Your task to perform on an android device: add a contact in the contacts app Image 0: 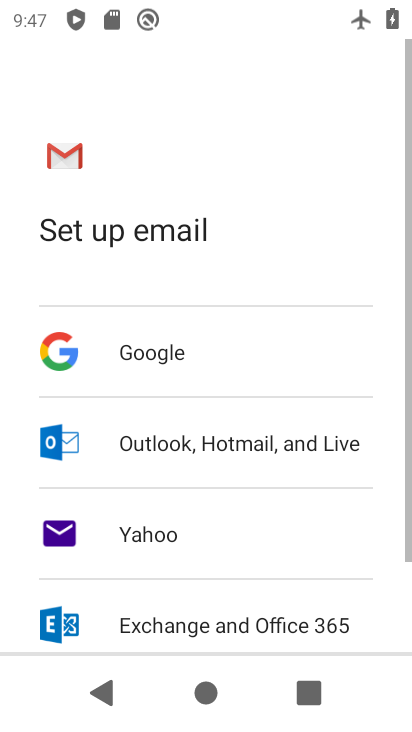
Step 0: press home button
Your task to perform on an android device: add a contact in the contacts app Image 1: 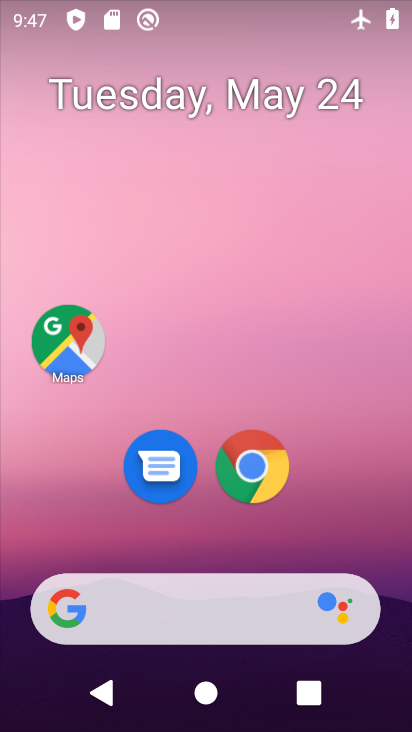
Step 1: drag from (220, 513) to (293, 6)
Your task to perform on an android device: add a contact in the contacts app Image 2: 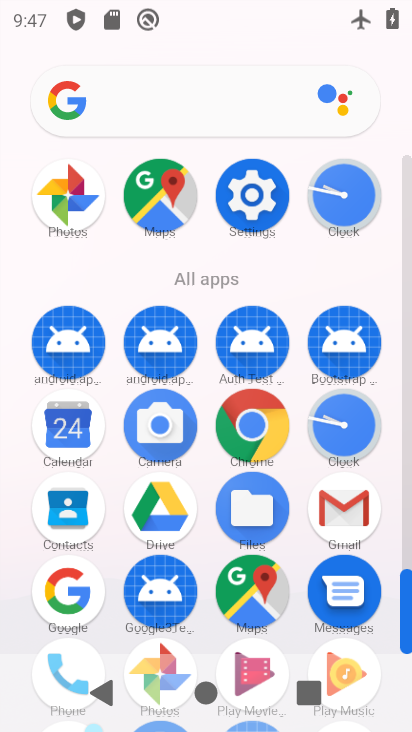
Step 2: click (79, 519)
Your task to perform on an android device: add a contact in the contacts app Image 3: 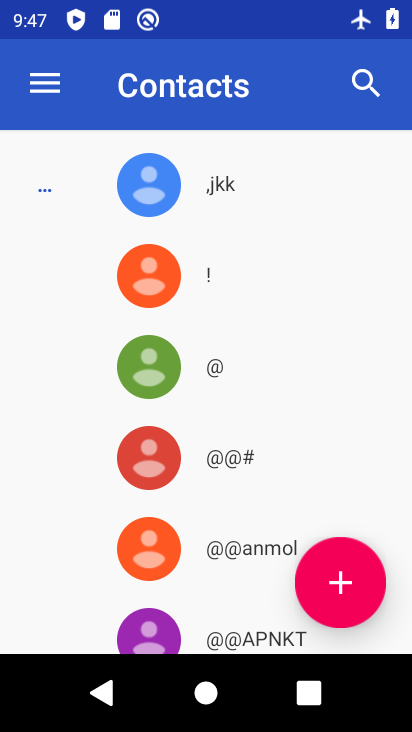
Step 3: click (335, 592)
Your task to perform on an android device: add a contact in the contacts app Image 4: 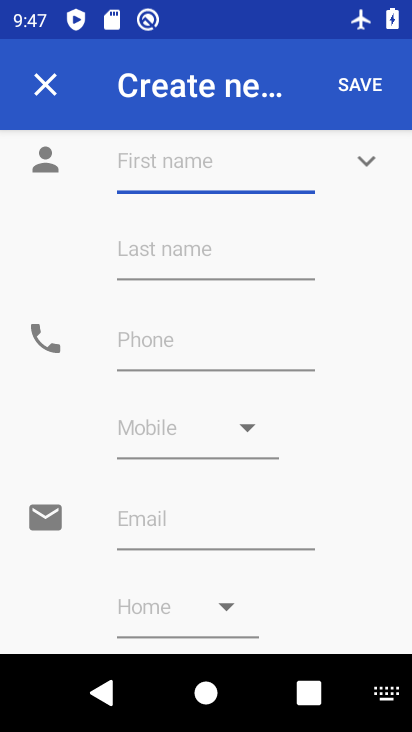
Step 4: type "flows"
Your task to perform on an android device: add a contact in the contacts app Image 5: 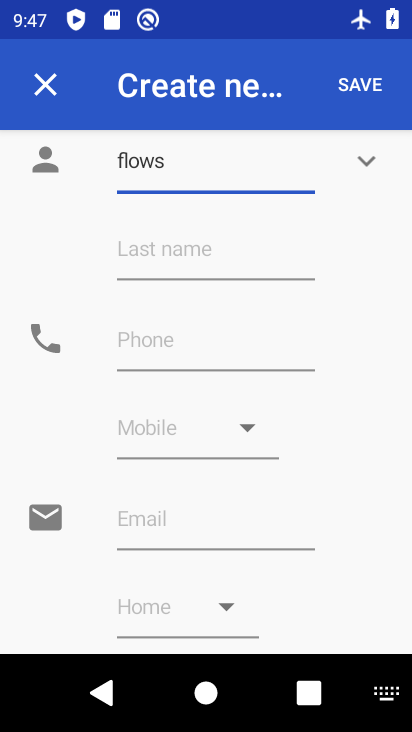
Step 5: click (351, 96)
Your task to perform on an android device: add a contact in the contacts app Image 6: 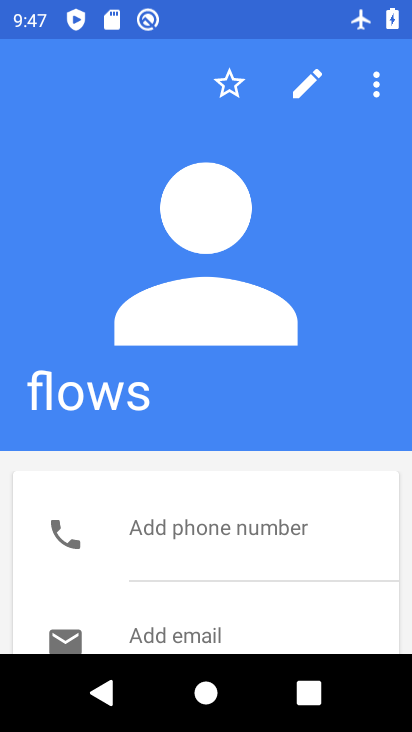
Step 6: task complete